Your task to perform on an android device: Go to accessibility settings Image 0: 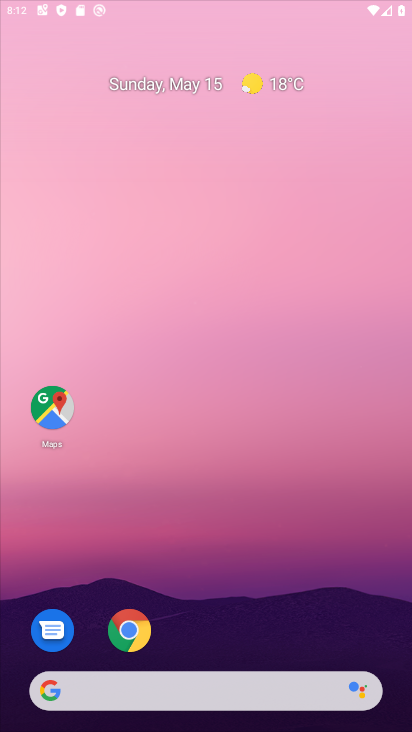
Step 0: drag from (199, 608) to (365, 29)
Your task to perform on an android device: Go to accessibility settings Image 1: 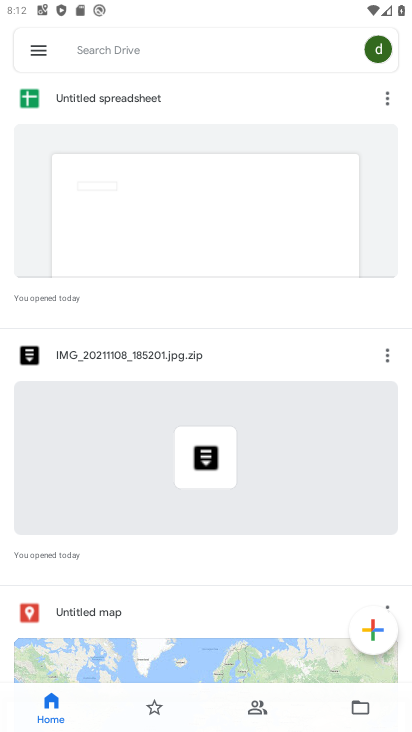
Step 1: press home button
Your task to perform on an android device: Go to accessibility settings Image 2: 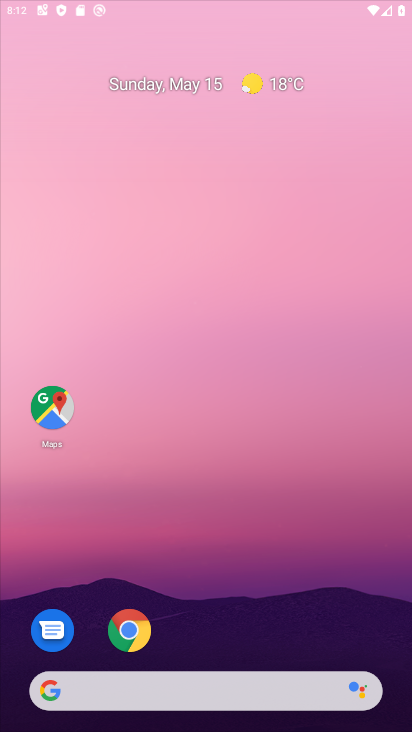
Step 2: drag from (193, 592) to (197, 205)
Your task to perform on an android device: Go to accessibility settings Image 3: 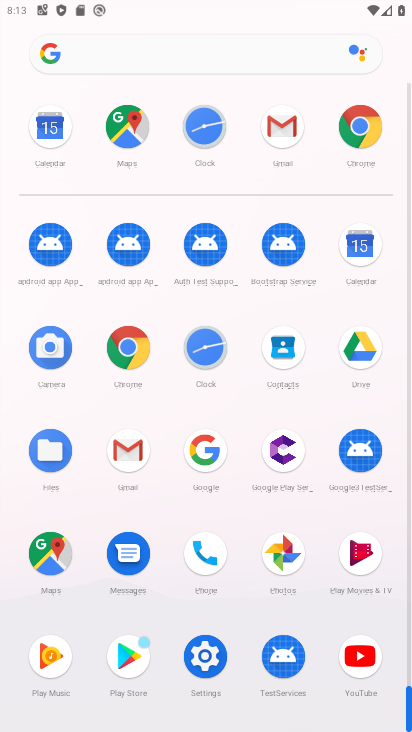
Step 3: click (193, 649)
Your task to perform on an android device: Go to accessibility settings Image 4: 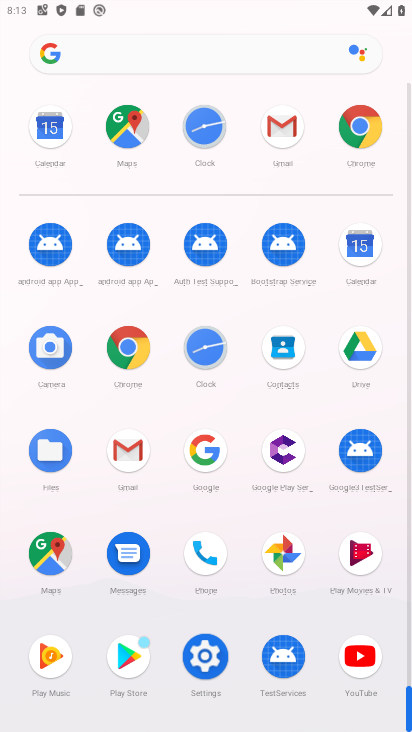
Step 4: click (193, 649)
Your task to perform on an android device: Go to accessibility settings Image 5: 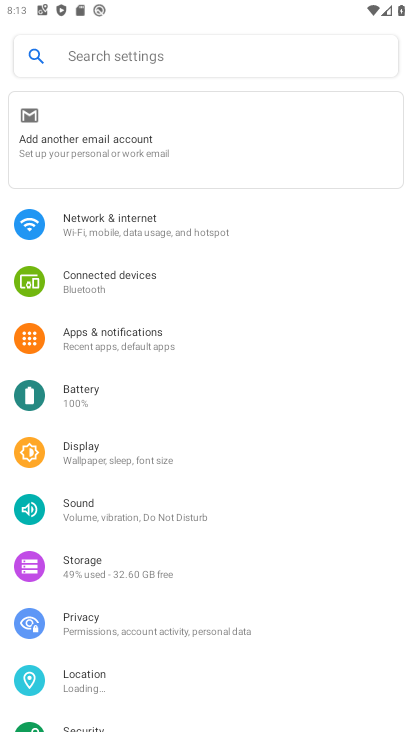
Step 5: drag from (225, 637) to (277, 139)
Your task to perform on an android device: Go to accessibility settings Image 6: 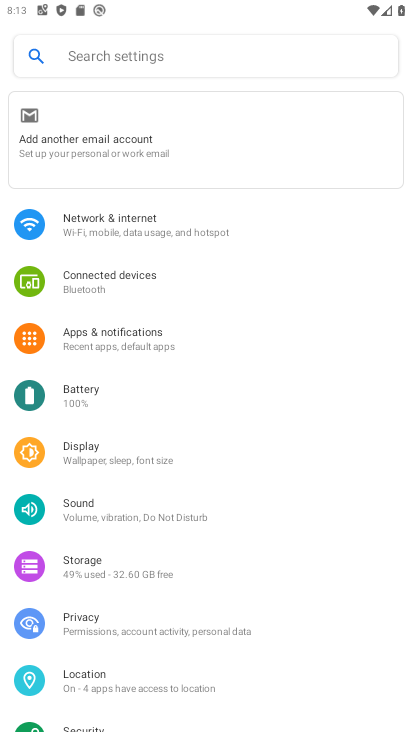
Step 6: drag from (144, 656) to (210, 332)
Your task to perform on an android device: Go to accessibility settings Image 7: 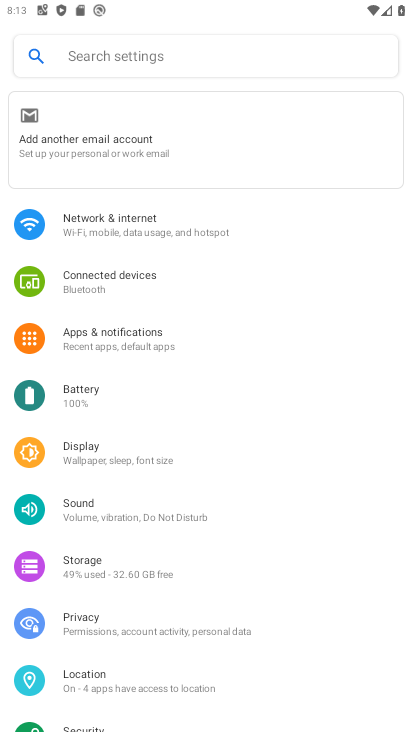
Step 7: drag from (157, 590) to (264, 83)
Your task to perform on an android device: Go to accessibility settings Image 8: 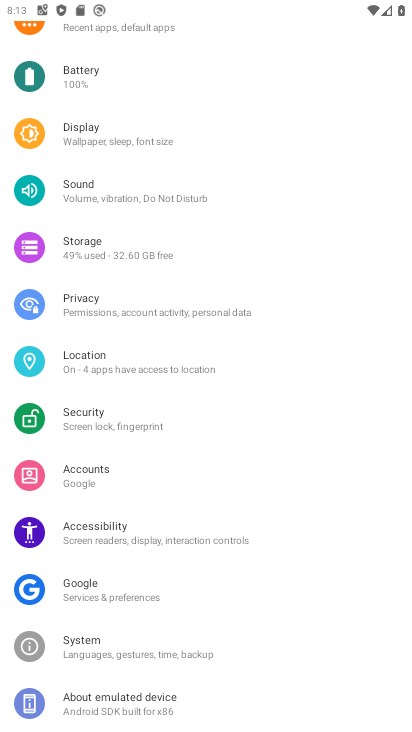
Step 8: click (105, 527)
Your task to perform on an android device: Go to accessibility settings Image 9: 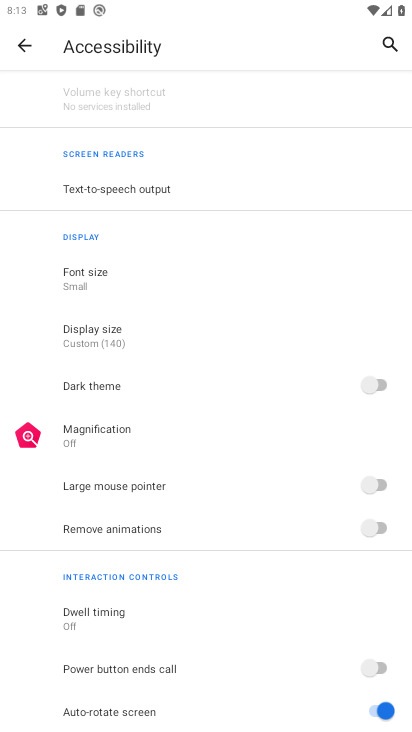
Step 9: task complete